Your task to perform on an android device: turn vacation reply on in the gmail app Image 0: 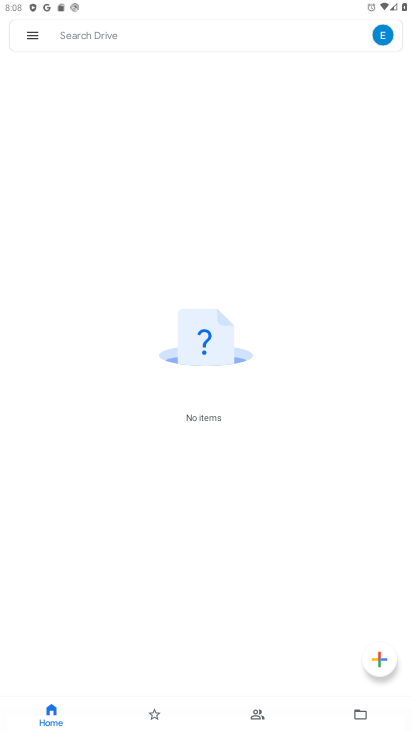
Step 0: press home button
Your task to perform on an android device: turn vacation reply on in the gmail app Image 1: 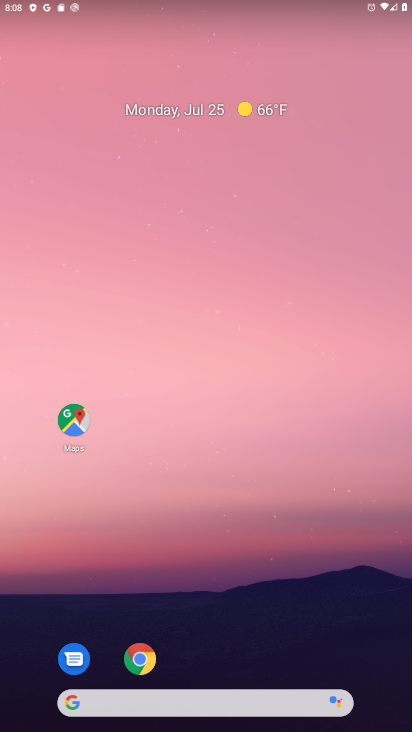
Step 1: drag from (241, 663) to (216, 44)
Your task to perform on an android device: turn vacation reply on in the gmail app Image 2: 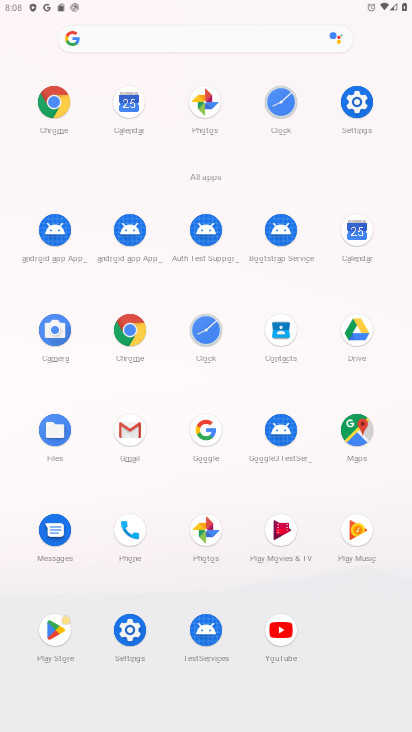
Step 2: click (129, 428)
Your task to perform on an android device: turn vacation reply on in the gmail app Image 3: 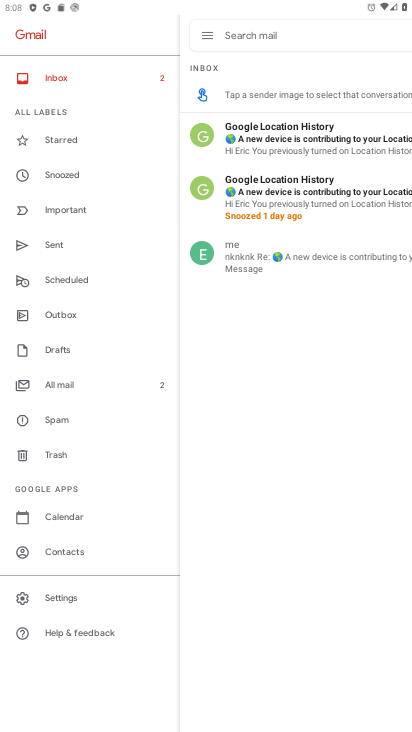
Step 3: click (48, 582)
Your task to perform on an android device: turn vacation reply on in the gmail app Image 4: 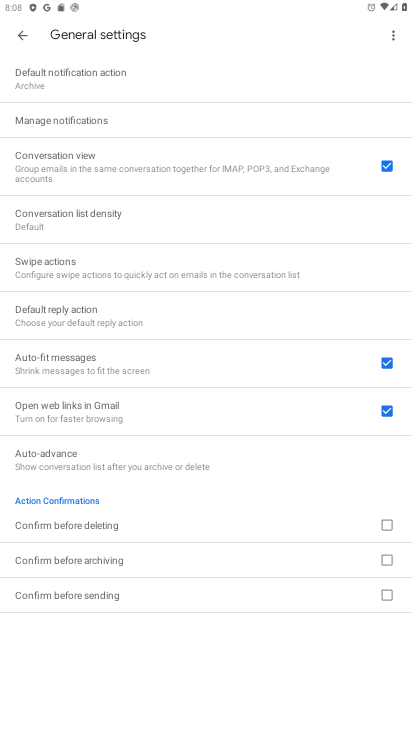
Step 4: click (15, 35)
Your task to perform on an android device: turn vacation reply on in the gmail app Image 5: 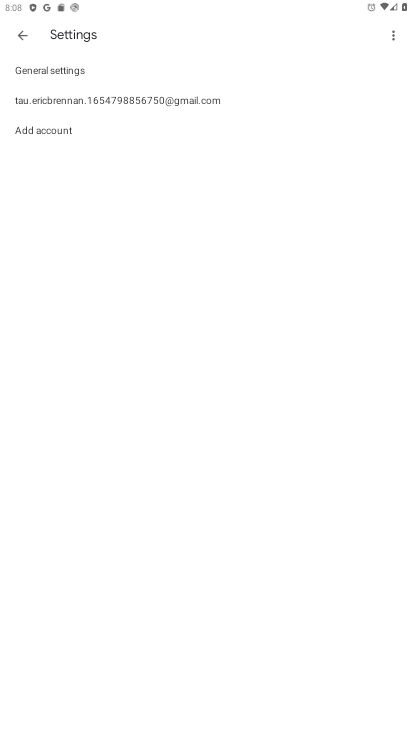
Step 5: click (43, 101)
Your task to perform on an android device: turn vacation reply on in the gmail app Image 6: 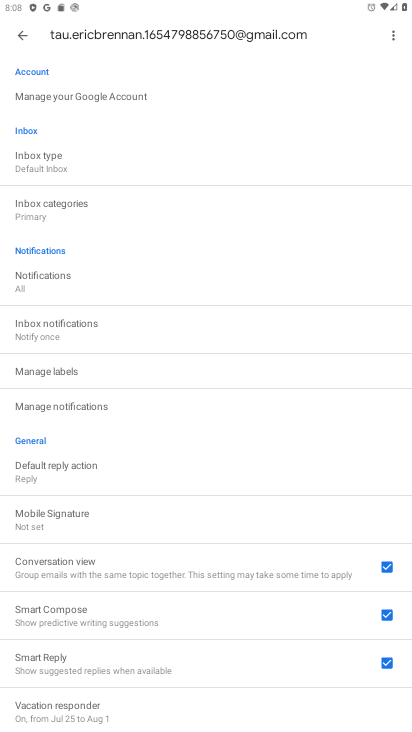
Step 6: drag from (279, 626) to (265, 506)
Your task to perform on an android device: turn vacation reply on in the gmail app Image 7: 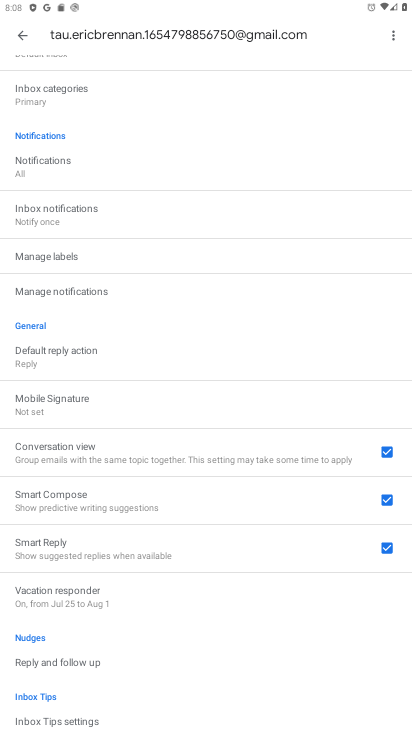
Step 7: click (70, 595)
Your task to perform on an android device: turn vacation reply on in the gmail app Image 8: 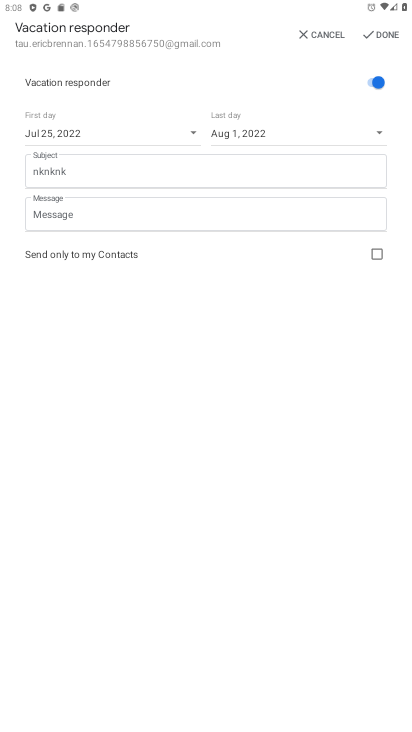
Step 8: click (374, 39)
Your task to perform on an android device: turn vacation reply on in the gmail app Image 9: 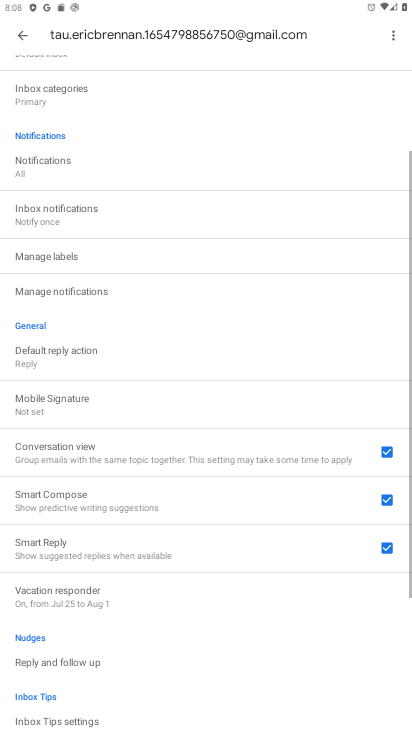
Step 9: task complete